Your task to perform on an android device: Turn on the flashlight Image 0: 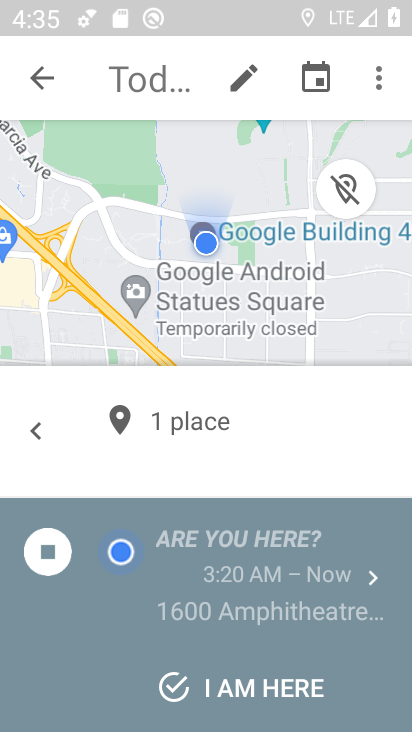
Step 0: press home button
Your task to perform on an android device: Turn on the flashlight Image 1: 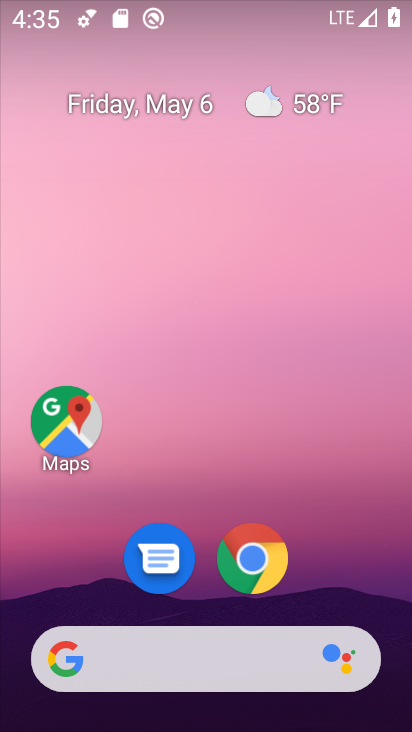
Step 1: drag from (311, 608) to (266, 31)
Your task to perform on an android device: Turn on the flashlight Image 2: 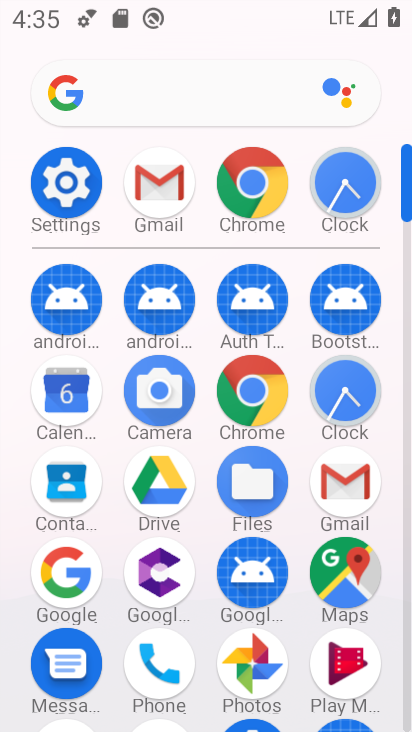
Step 2: click (57, 193)
Your task to perform on an android device: Turn on the flashlight Image 3: 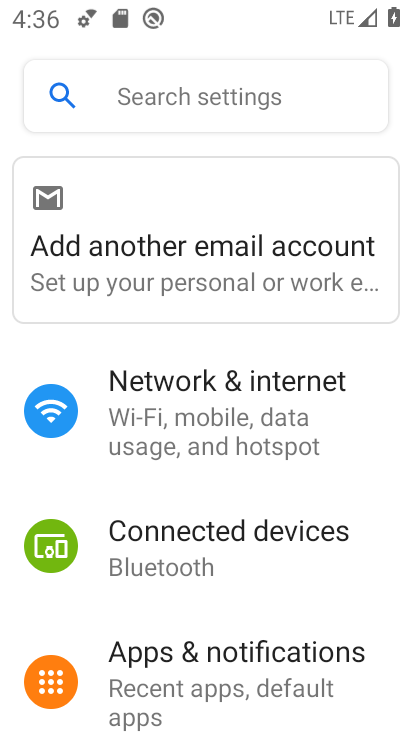
Step 3: task complete